Your task to perform on an android device: Open battery settings Image 0: 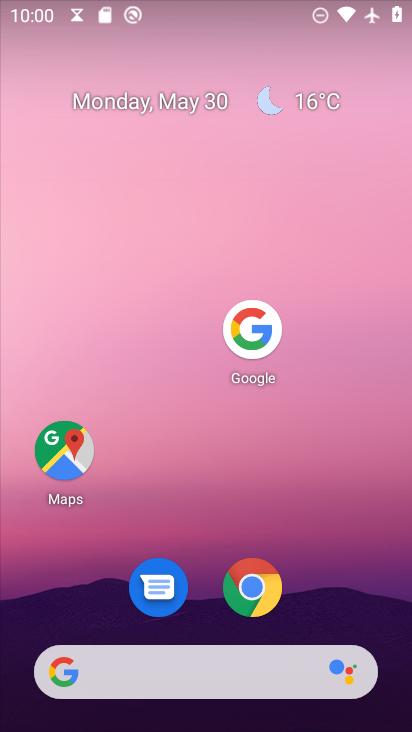
Step 0: drag from (185, 671) to (288, 153)
Your task to perform on an android device: Open battery settings Image 1: 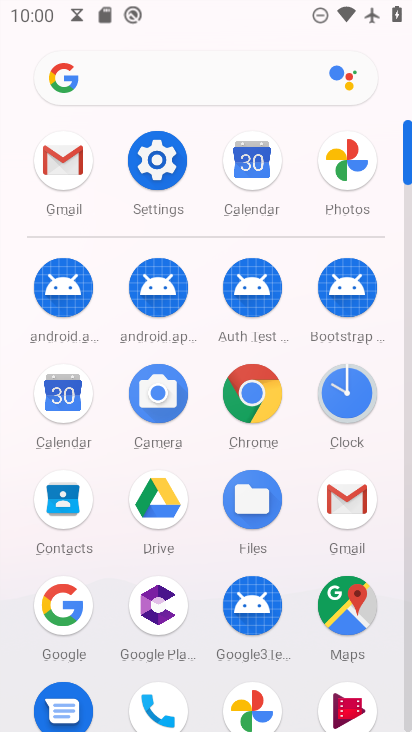
Step 1: click (151, 168)
Your task to perform on an android device: Open battery settings Image 2: 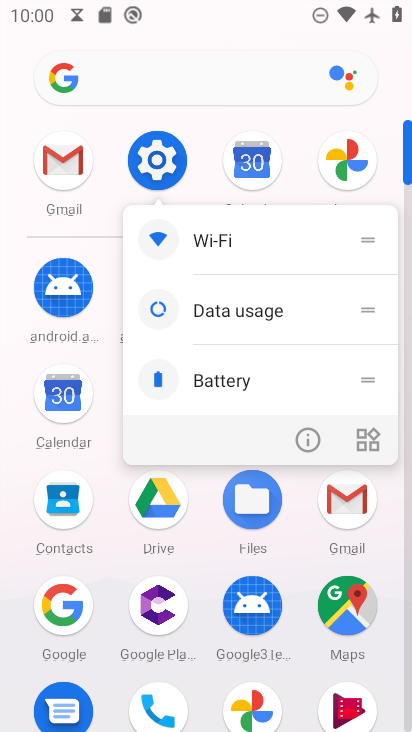
Step 2: click (164, 159)
Your task to perform on an android device: Open battery settings Image 3: 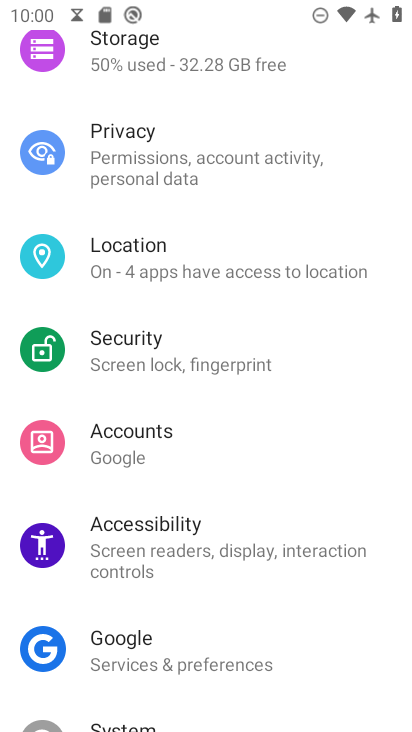
Step 3: drag from (272, 143) to (96, 612)
Your task to perform on an android device: Open battery settings Image 4: 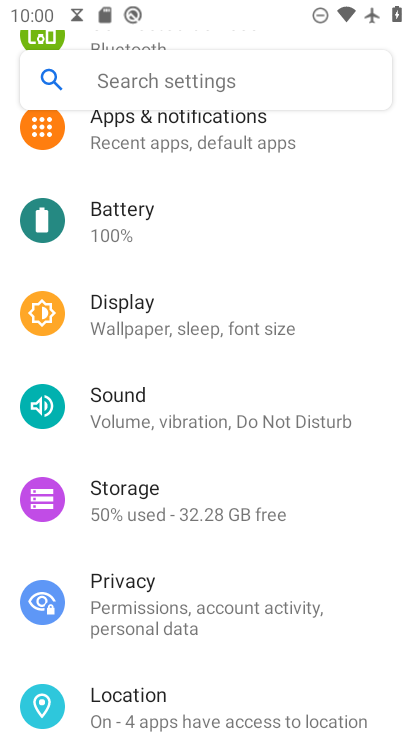
Step 4: click (112, 202)
Your task to perform on an android device: Open battery settings Image 5: 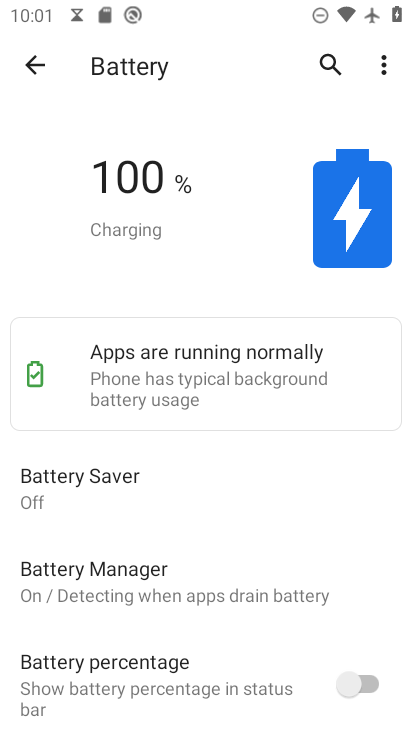
Step 5: task complete